Your task to perform on an android device: Go to display settings Image 0: 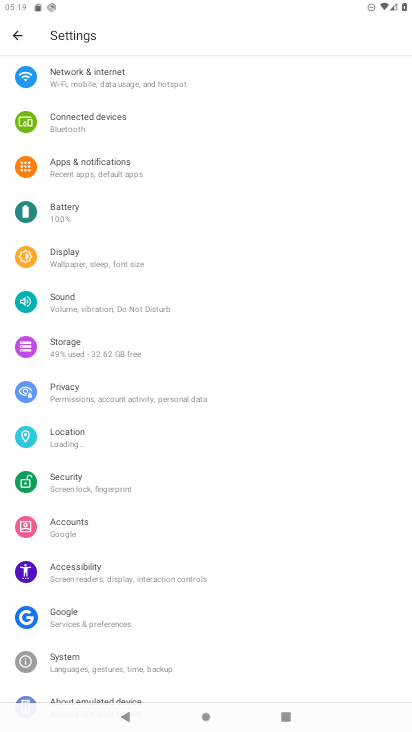
Step 0: press home button
Your task to perform on an android device: Go to display settings Image 1: 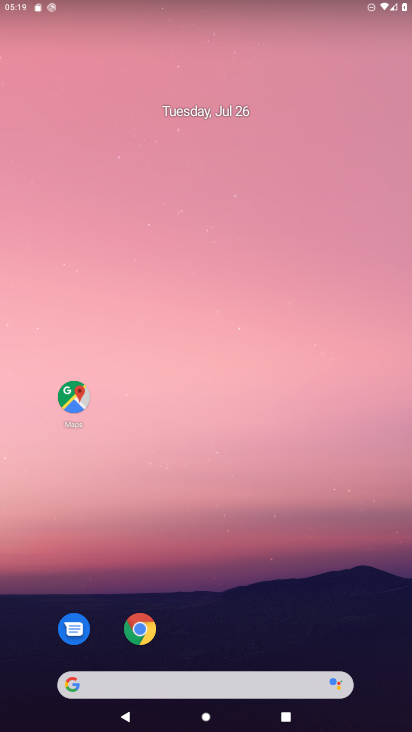
Step 1: drag from (224, 619) to (263, 45)
Your task to perform on an android device: Go to display settings Image 2: 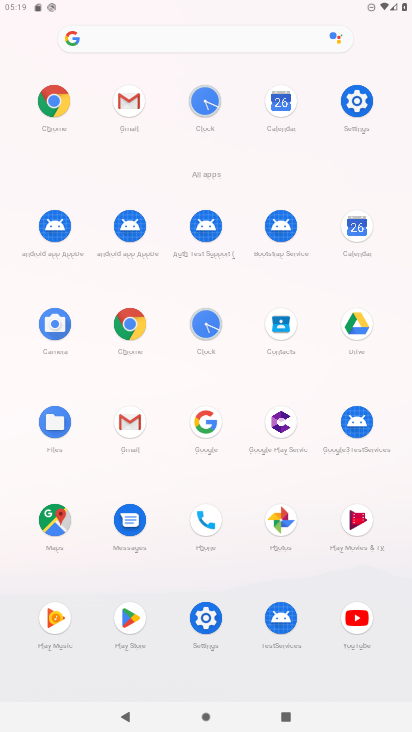
Step 2: click (358, 96)
Your task to perform on an android device: Go to display settings Image 3: 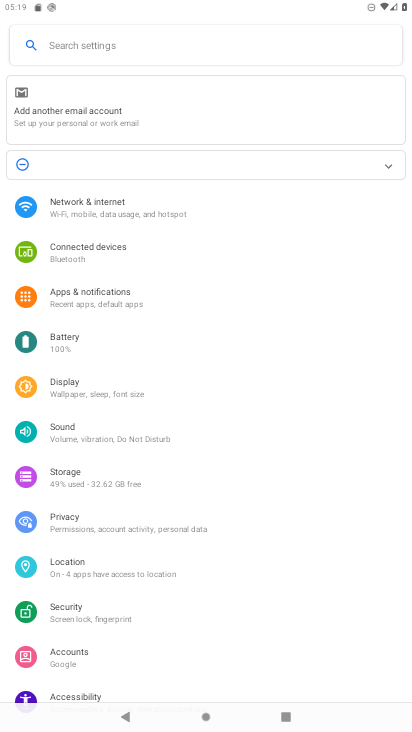
Step 3: click (76, 398)
Your task to perform on an android device: Go to display settings Image 4: 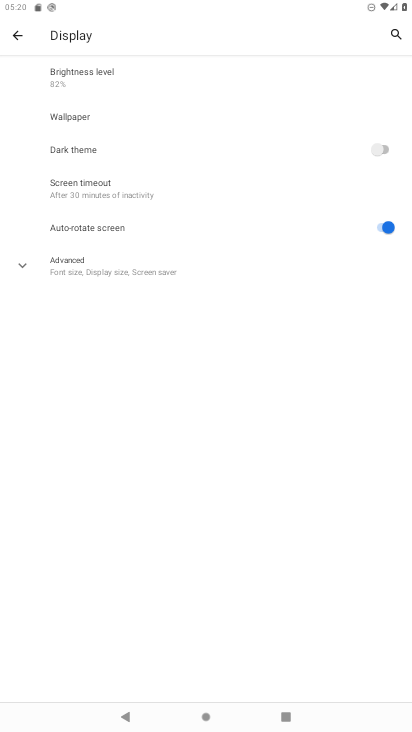
Step 4: task complete